Your task to perform on an android device: Open display settings Image 0: 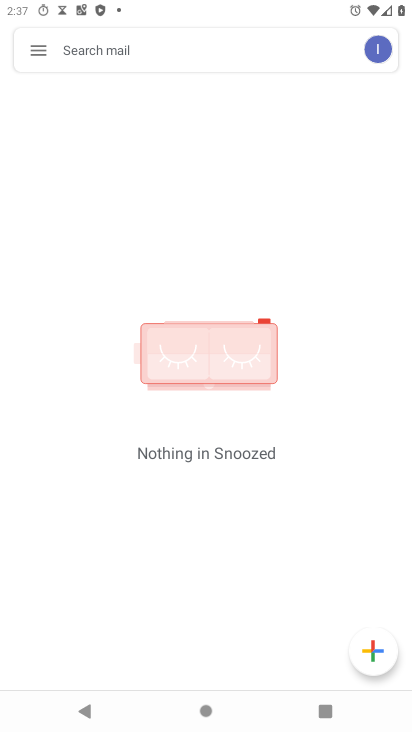
Step 0: press home button
Your task to perform on an android device: Open display settings Image 1: 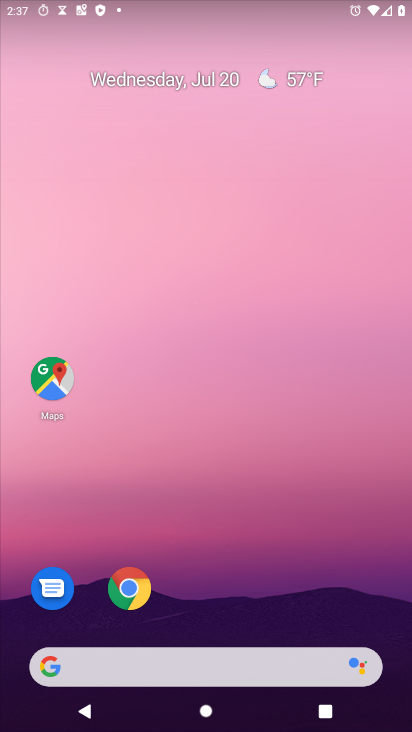
Step 1: drag from (315, 662) to (345, 51)
Your task to perform on an android device: Open display settings Image 2: 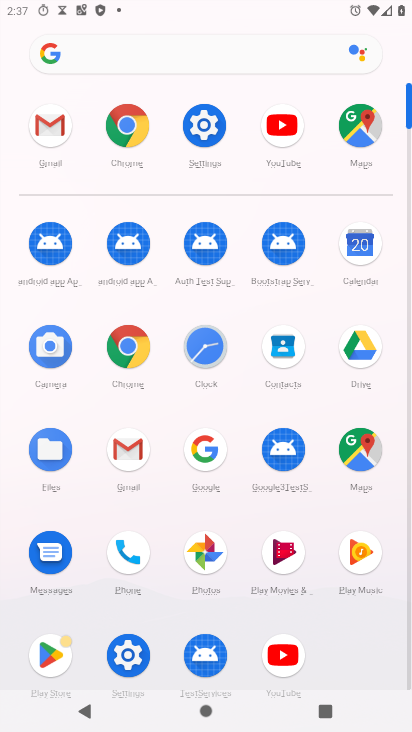
Step 2: click (214, 131)
Your task to perform on an android device: Open display settings Image 3: 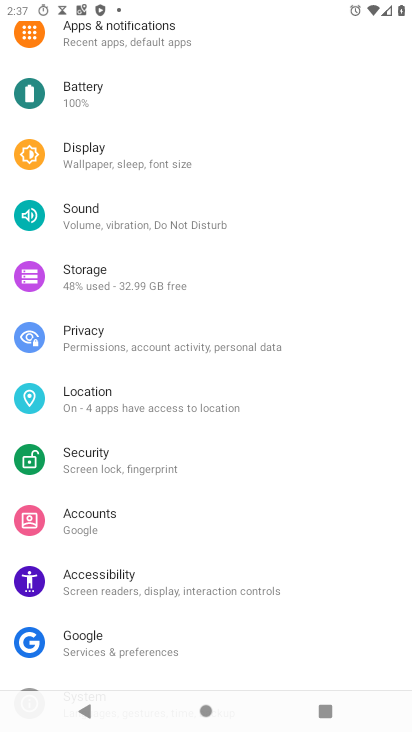
Step 3: click (128, 152)
Your task to perform on an android device: Open display settings Image 4: 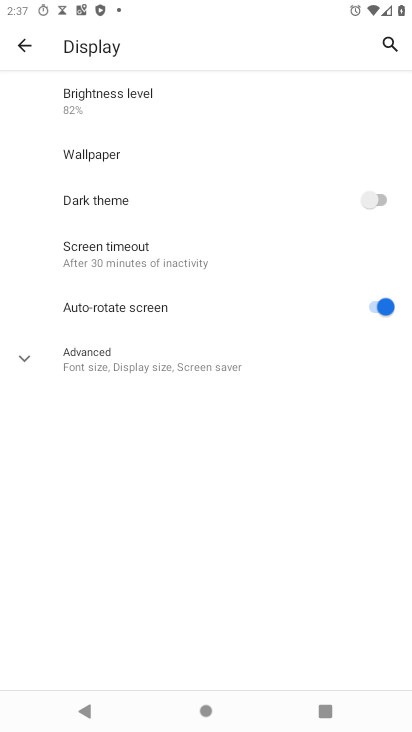
Step 4: task complete